Your task to perform on an android device: Go to ESPN.com Image 0: 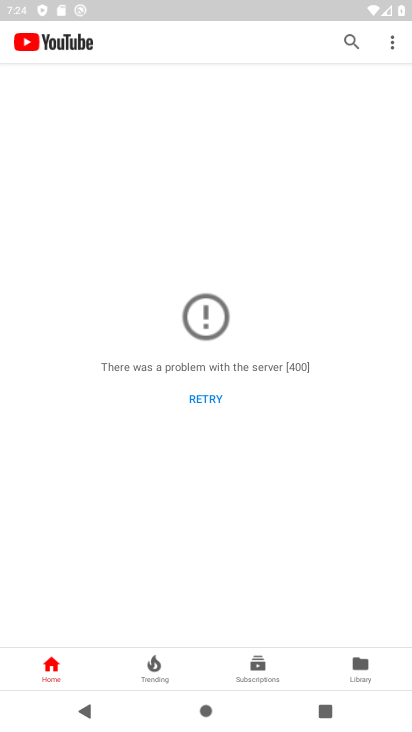
Step 0: press home button
Your task to perform on an android device: Go to ESPN.com Image 1: 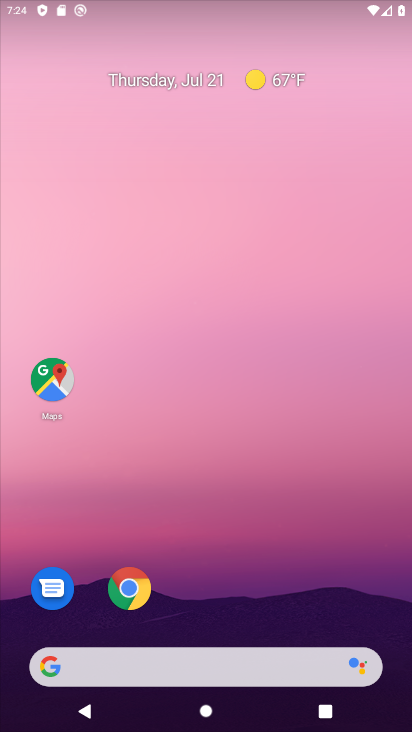
Step 1: drag from (177, 647) to (191, 362)
Your task to perform on an android device: Go to ESPN.com Image 2: 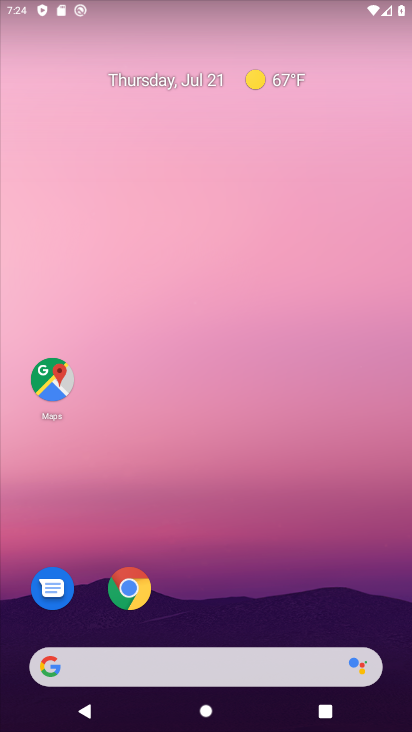
Step 2: click (140, 595)
Your task to perform on an android device: Go to ESPN.com Image 3: 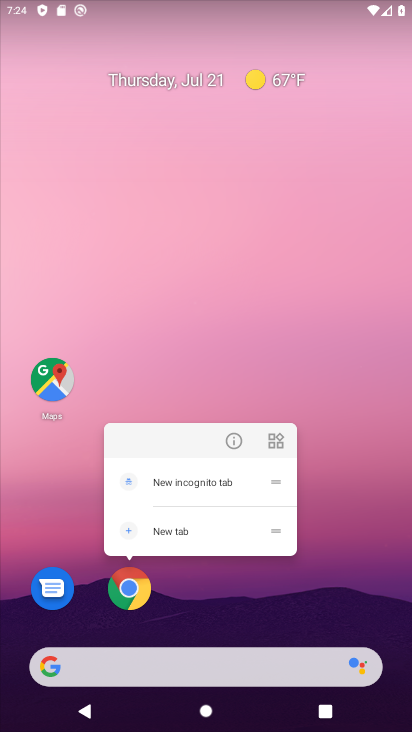
Step 3: click (136, 594)
Your task to perform on an android device: Go to ESPN.com Image 4: 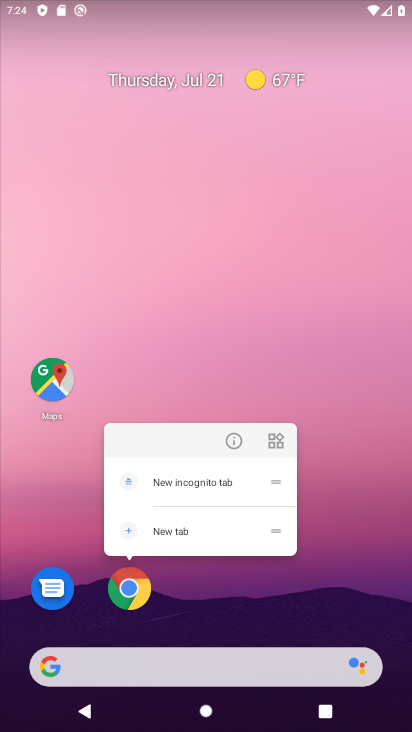
Step 4: click (126, 584)
Your task to perform on an android device: Go to ESPN.com Image 5: 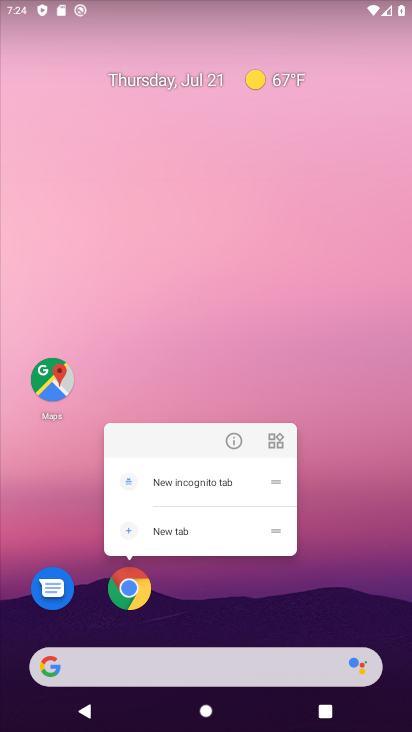
Step 5: click (131, 578)
Your task to perform on an android device: Go to ESPN.com Image 6: 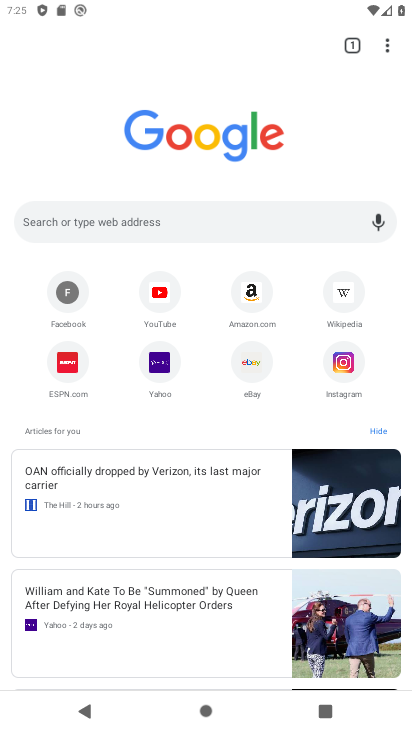
Step 6: click (69, 362)
Your task to perform on an android device: Go to ESPN.com Image 7: 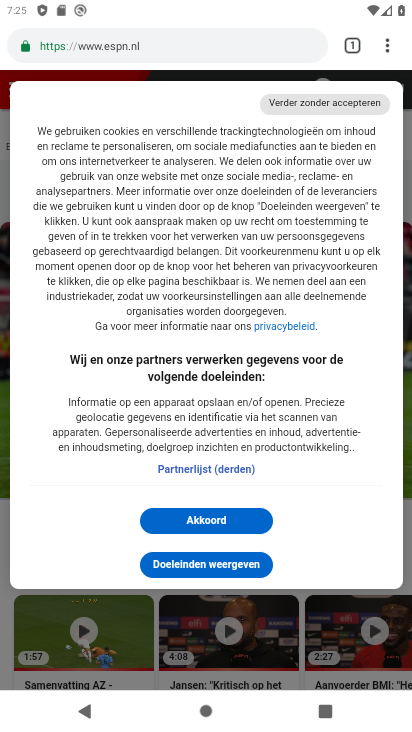
Step 7: task complete